Your task to perform on an android device: add a label to a message in the gmail app Image 0: 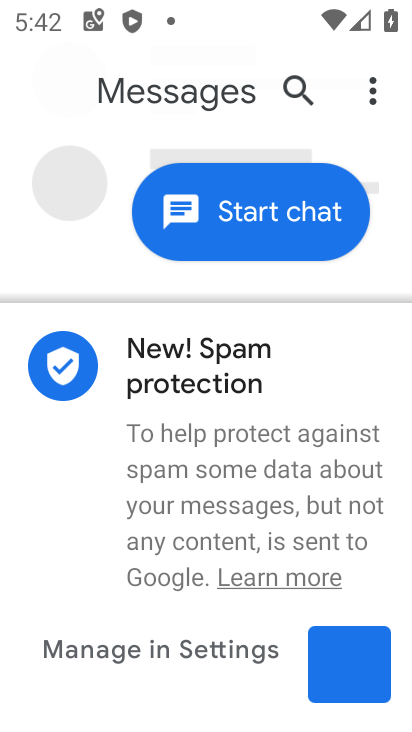
Step 0: drag from (183, 586) to (194, 201)
Your task to perform on an android device: add a label to a message in the gmail app Image 1: 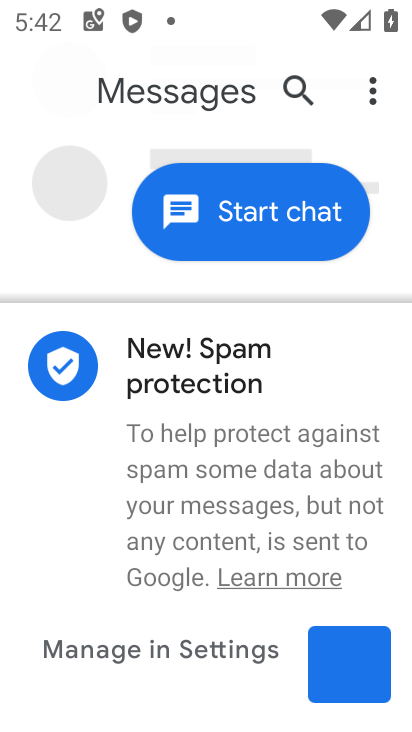
Step 1: press home button
Your task to perform on an android device: add a label to a message in the gmail app Image 2: 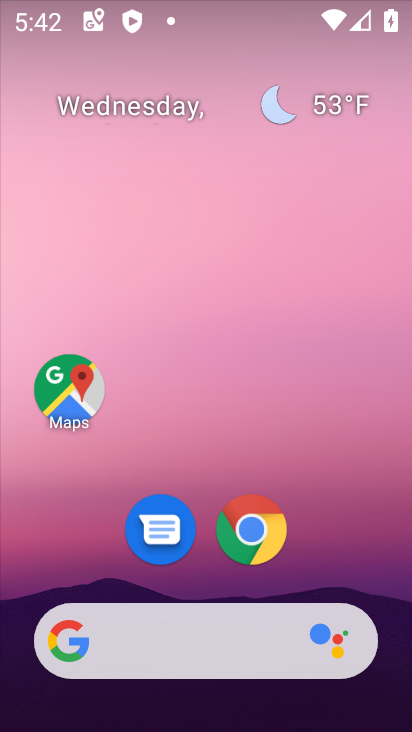
Step 2: drag from (193, 586) to (204, 146)
Your task to perform on an android device: add a label to a message in the gmail app Image 3: 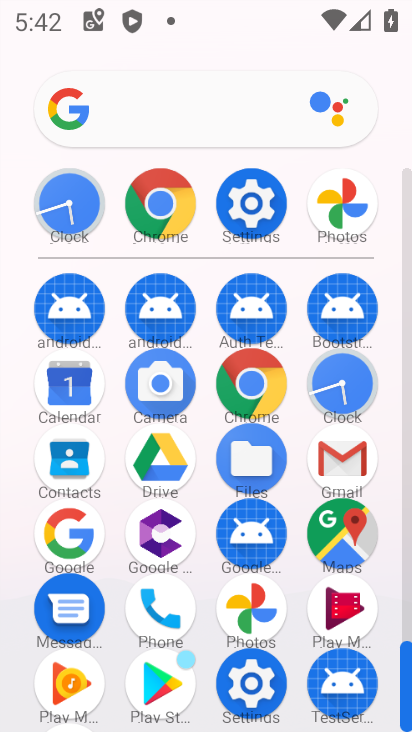
Step 3: click (337, 477)
Your task to perform on an android device: add a label to a message in the gmail app Image 4: 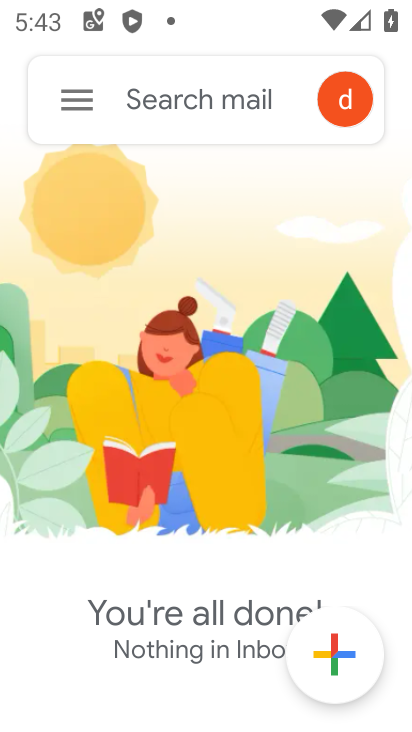
Step 4: click (69, 93)
Your task to perform on an android device: add a label to a message in the gmail app Image 5: 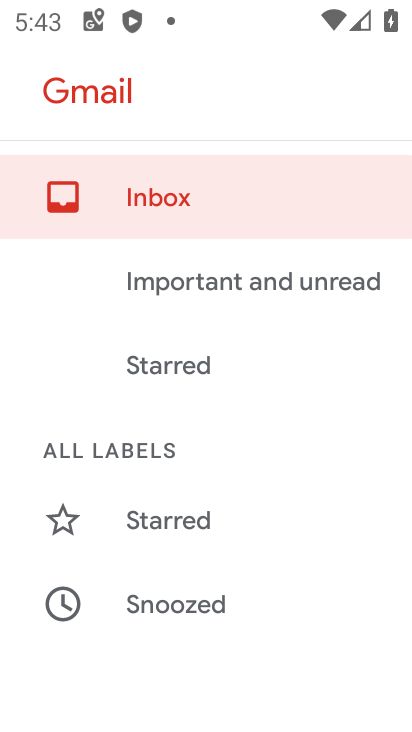
Step 5: click (86, 104)
Your task to perform on an android device: add a label to a message in the gmail app Image 6: 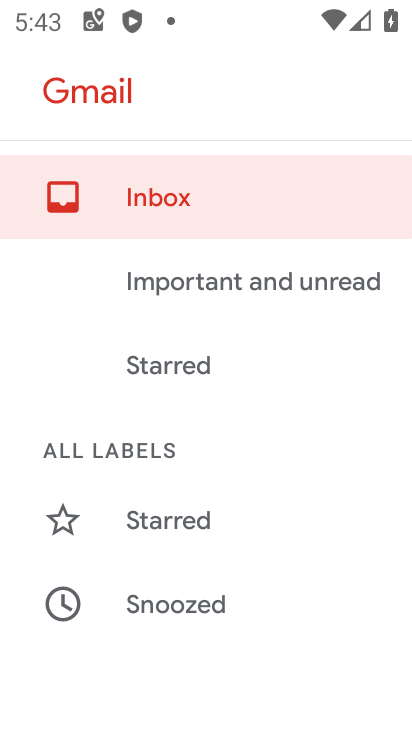
Step 6: drag from (211, 597) to (210, 363)
Your task to perform on an android device: add a label to a message in the gmail app Image 7: 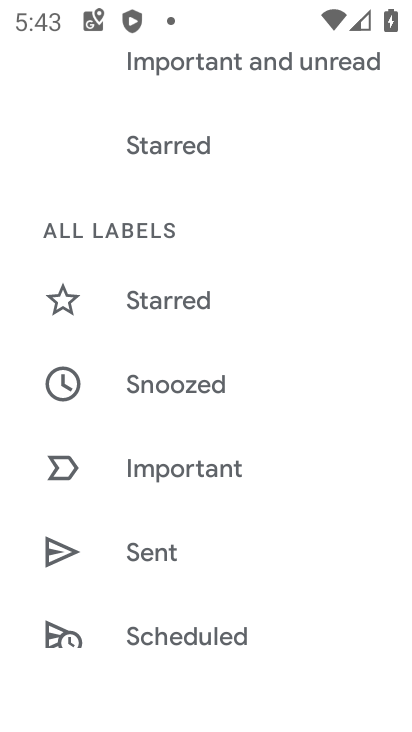
Step 7: drag from (244, 536) to (246, 266)
Your task to perform on an android device: add a label to a message in the gmail app Image 8: 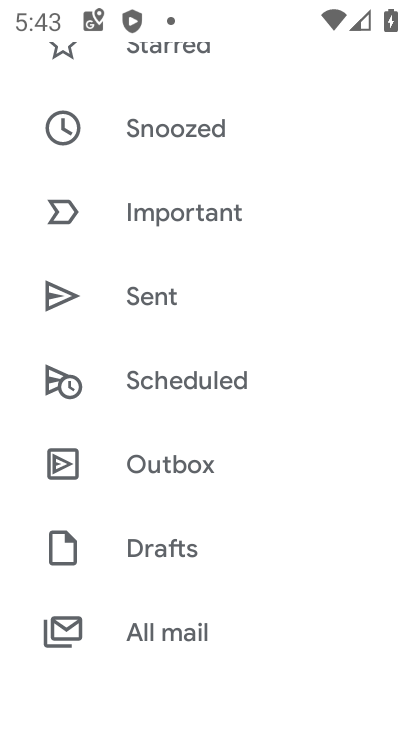
Step 8: drag from (229, 580) to (235, 290)
Your task to perform on an android device: add a label to a message in the gmail app Image 9: 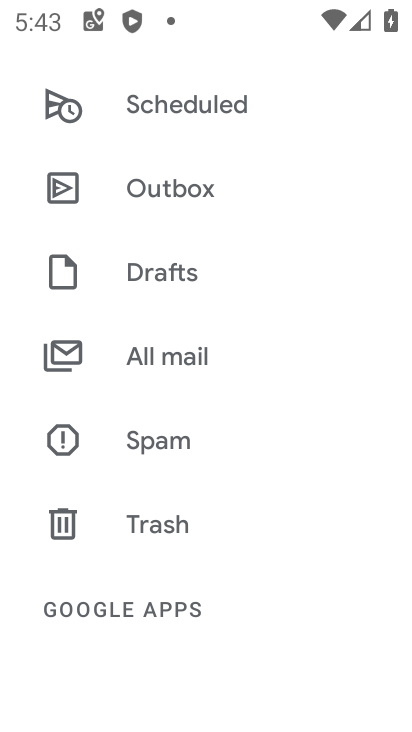
Step 9: drag from (233, 547) to (232, 298)
Your task to perform on an android device: add a label to a message in the gmail app Image 10: 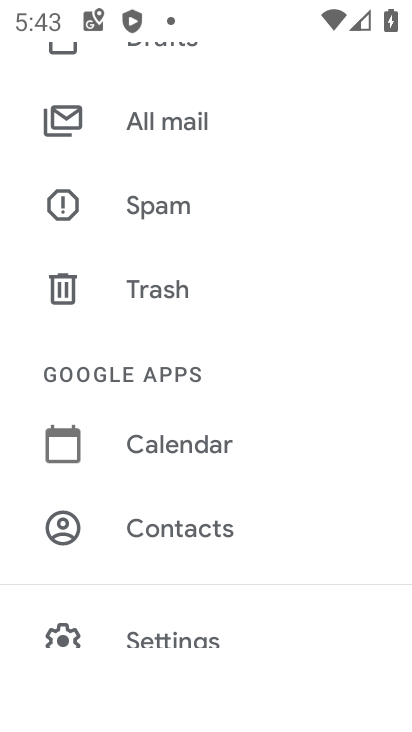
Step 10: click (161, 113)
Your task to perform on an android device: add a label to a message in the gmail app Image 11: 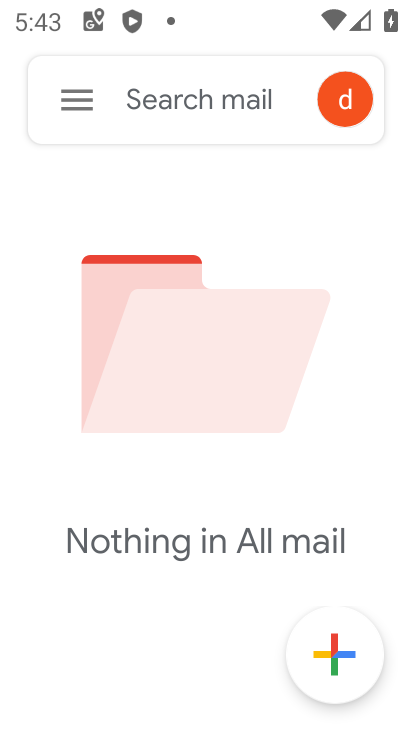
Step 11: task complete